Your task to perform on an android device: change text size in settings app Image 0: 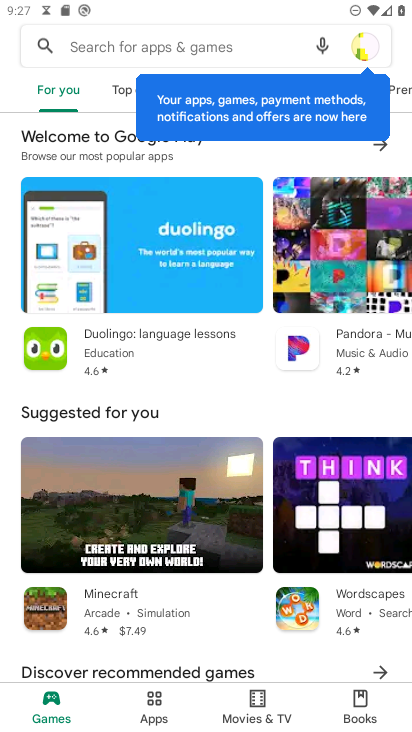
Step 0: press home button
Your task to perform on an android device: change text size in settings app Image 1: 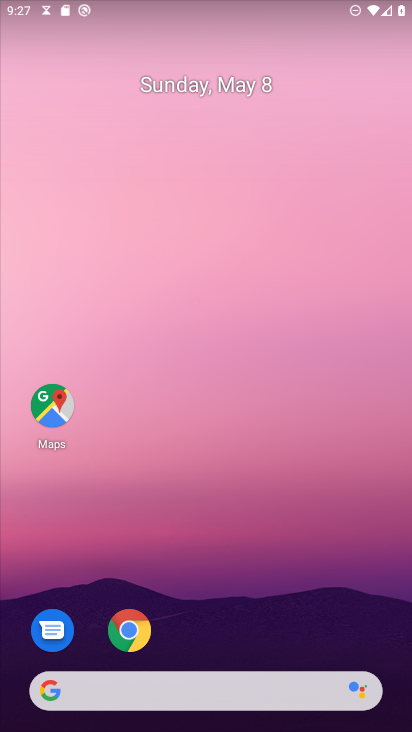
Step 1: drag from (183, 690) to (326, 137)
Your task to perform on an android device: change text size in settings app Image 2: 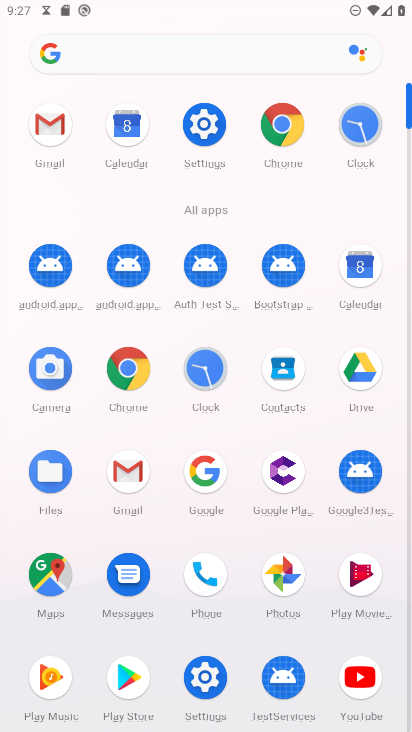
Step 2: click (199, 126)
Your task to perform on an android device: change text size in settings app Image 3: 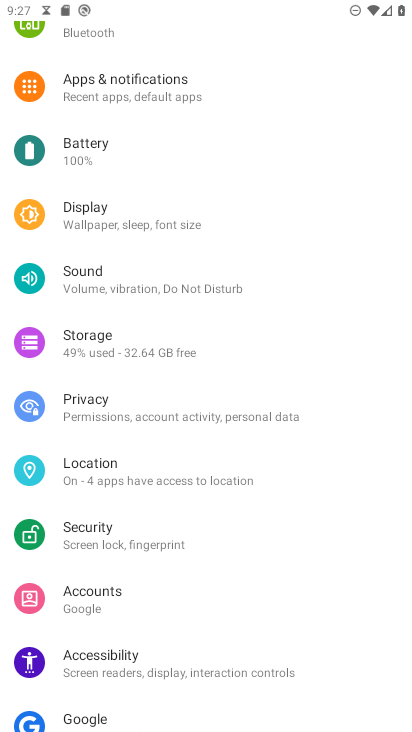
Step 3: click (107, 219)
Your task to perform on an android device: change text size in settings app Image 4: 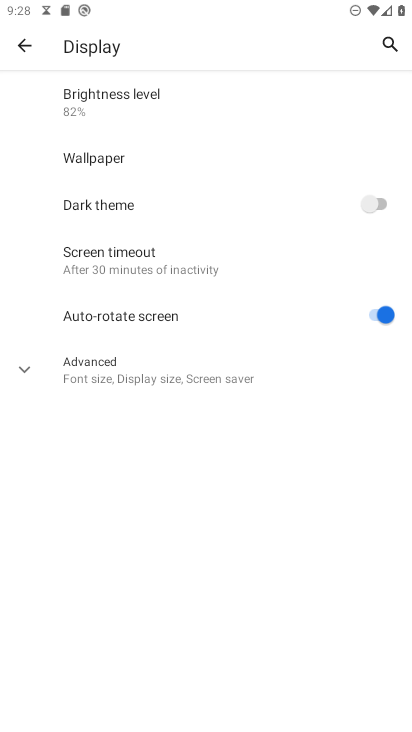
Step 4: click (136, 368)
Your task to perform on an android device: change text size in settings app Image 5: 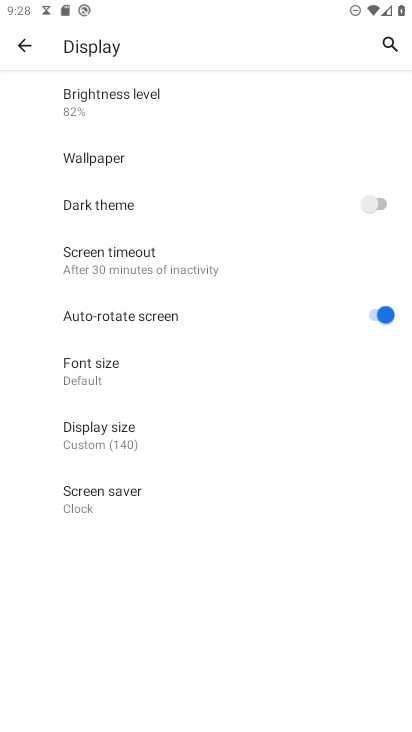
Step 5: click (100, 376)
Your task to perform on an android device: change text size in settings app Image 6: 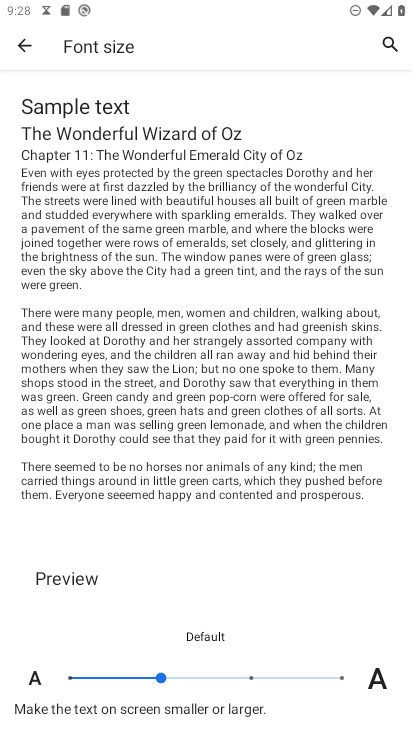
Step 6: click (250, 678)
Your task to perform on an android device: change text size in settings app Image 7: 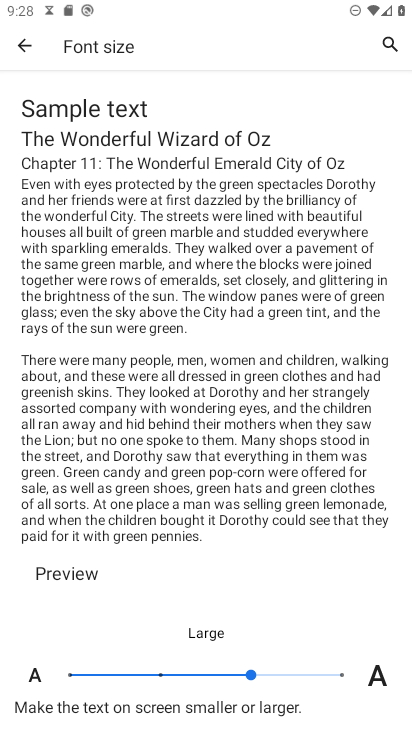
Step 7: task complete